Your task to perform on an android device: Open Google Maps Image 0: 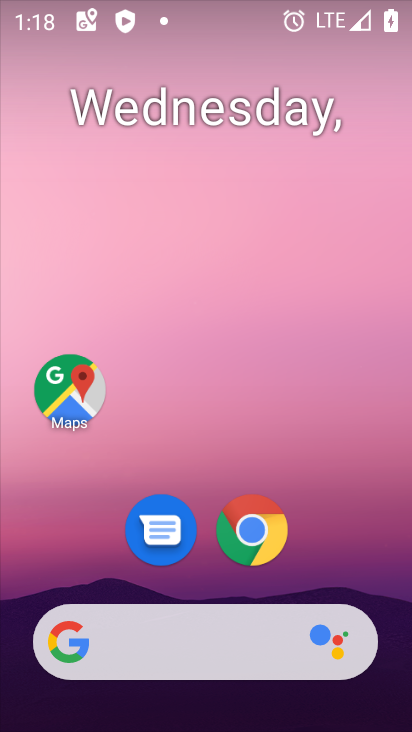
Step 0: drag from (346, 497) to (311, 96)
Your task to perform on an android device: Open Google Maps Image 1: 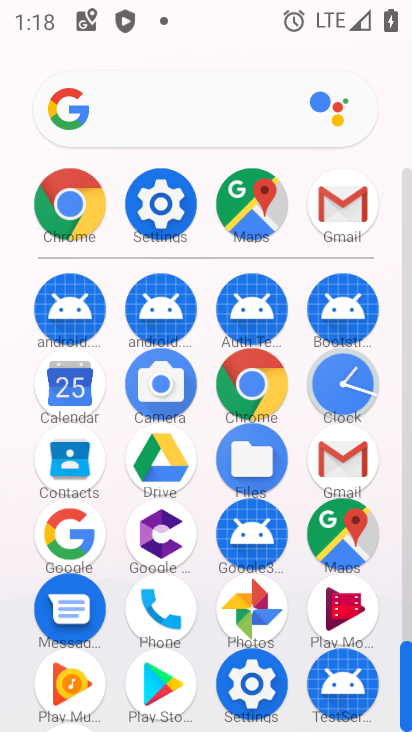
Step 1: click (342, 530)
Your task to perform on an android device: Open Google Maps Image 2: 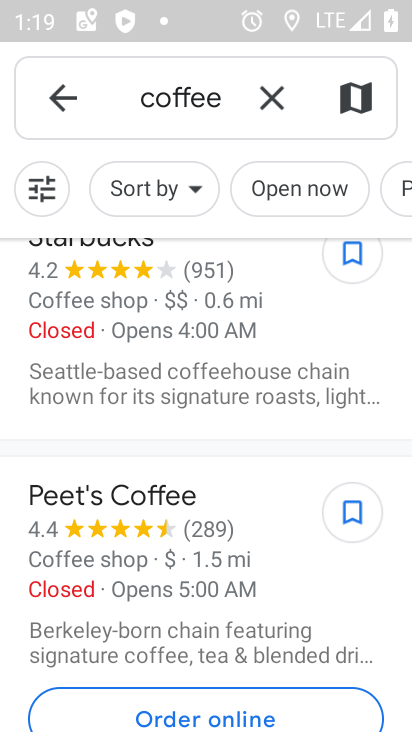
Step 2: task complete